Your task to perform on an android device: What's on my calendar today? Image 0: 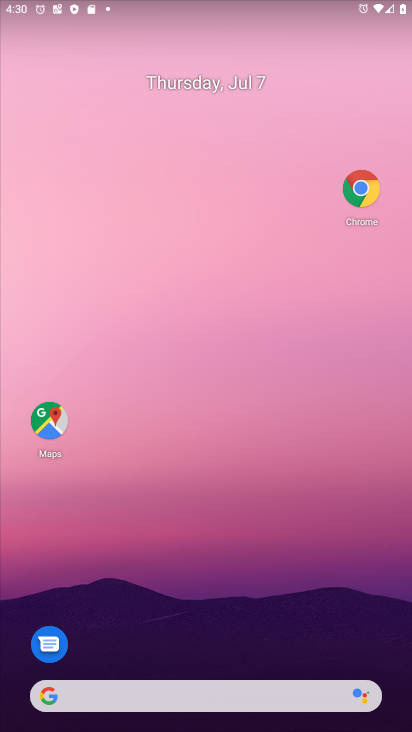
Step 0: drag from (284, 523) to (210, 114)
Your task to perform on an android device: What's on my calendar today? Image 1: 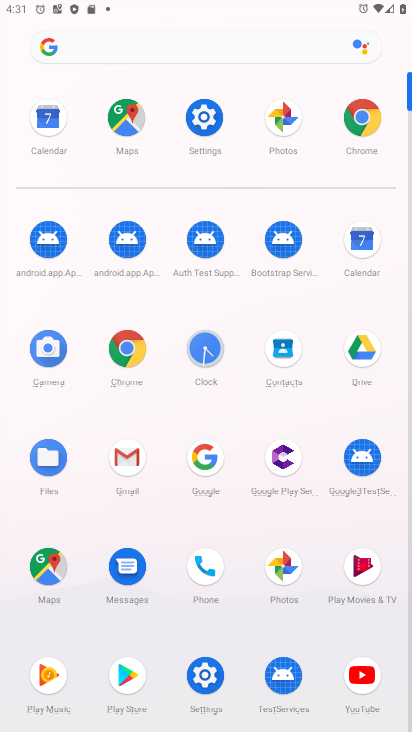
Step 1: click (364, 231)
Your task to perform on an android device: What's on my calendar today? Image 2: 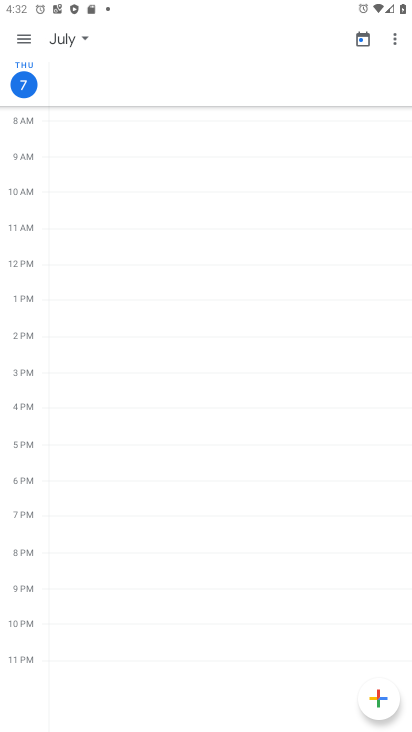
Step 2: click (31, 30)
Your task to perform on an android device: What's on my calendar today? Image 3: 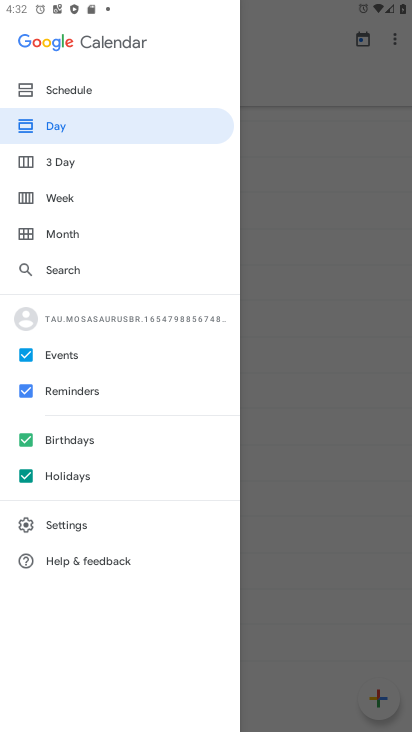
Step 3: click (44, 87)
Your task to perform on an android device: What's on my calendar today? Image 4: 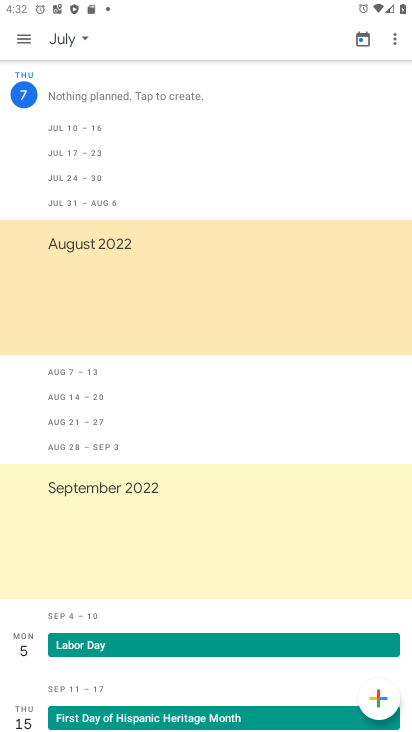
Step 4: task complete